Your task to perform on an android device: check android version Image 0: 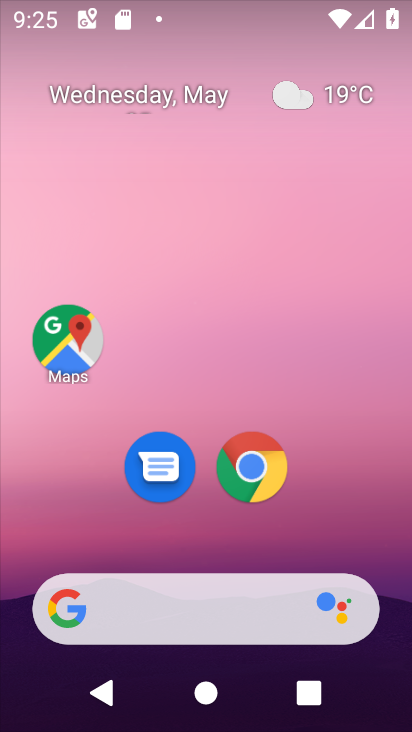
Step 0: drag from (355, 528) to (312, 54)
Your task to perform on an android device: check android version Image 1: 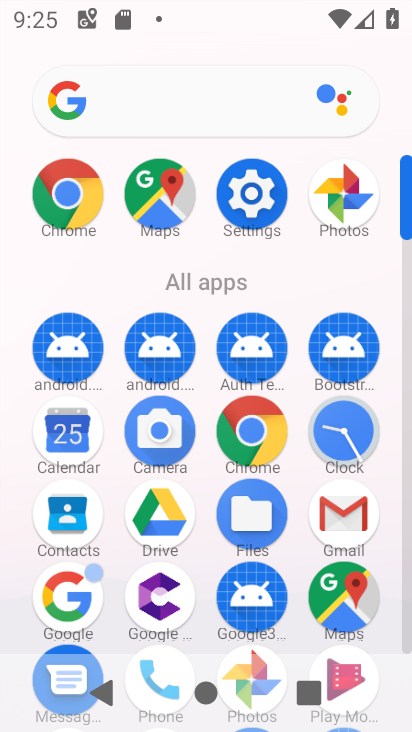
Step 1: click (255, 191)
Your task to perform on an android device: check android version Image 2: 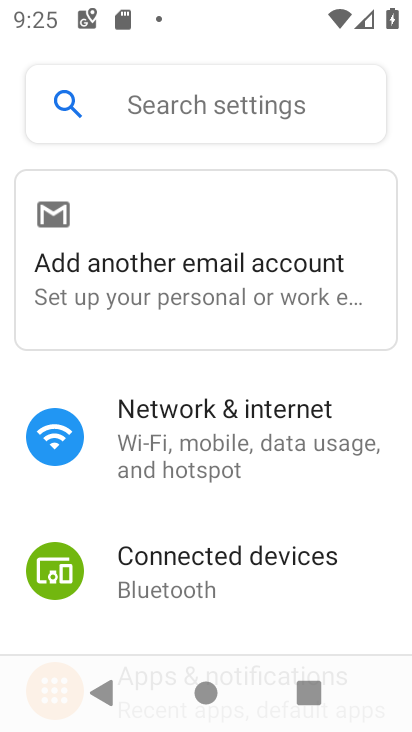
Step 2: drag from (247, 571) to (197, 17)
Your task to perform on an android device: check android version Image 3: 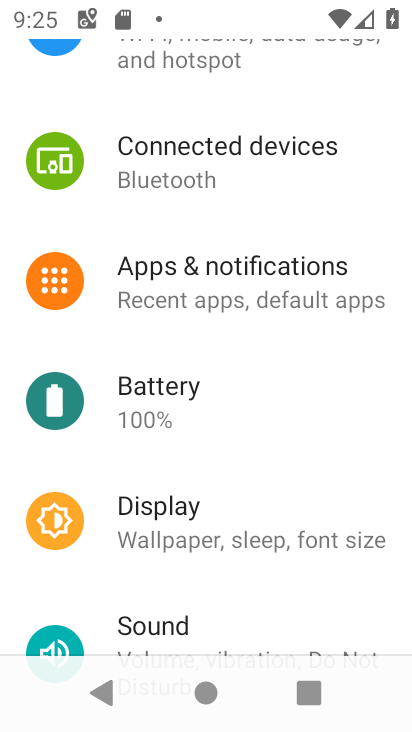
Step 3: drag from (204, 518) to (160, 90)
Your task to perform on an android device: check android version Image 4: 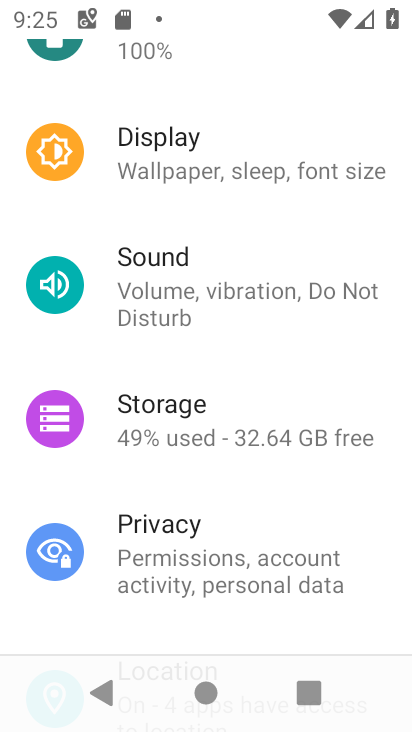
Step 4: drag from (99, 466) to (142, 83)
Your task to perform on an android device: check android version Image 5: 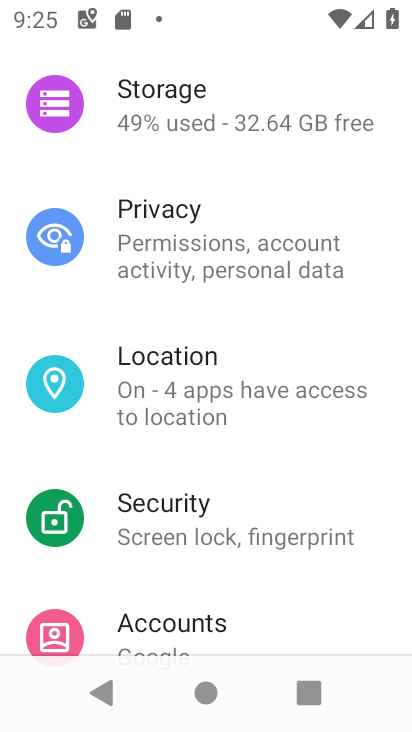
Step 5: drag from (177, 400) to (197, 39)
Your task to perform on an android device: check android version Image 6: 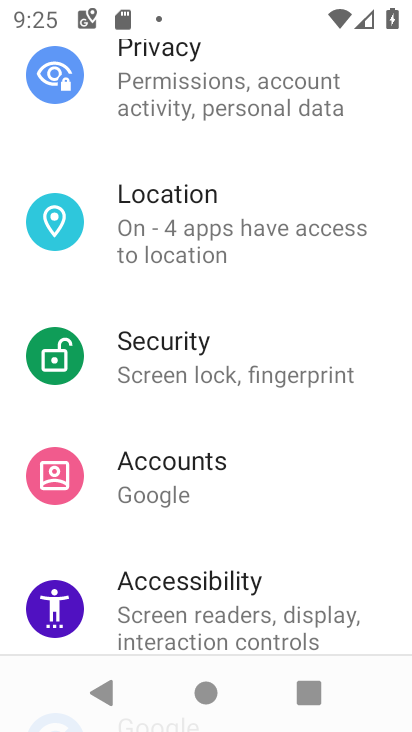
Step 6: drag from (137, 489) to (146, 88)
Your task to perform on an android device: check android version Image 7: 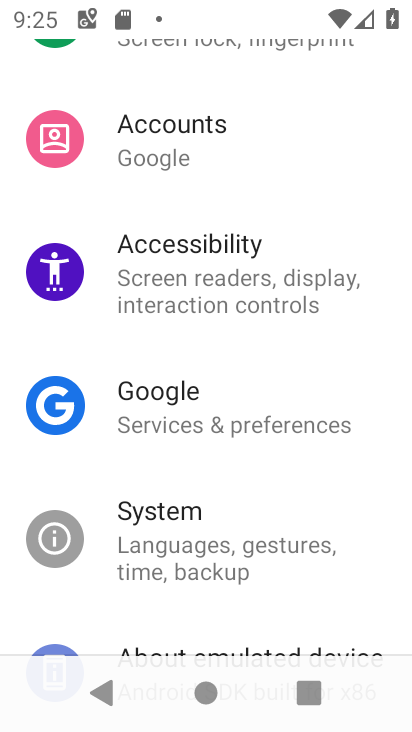
Step 7: drag from (113, 456) to (144, 73)
Your task to perform on an android device: check android version Image 8: 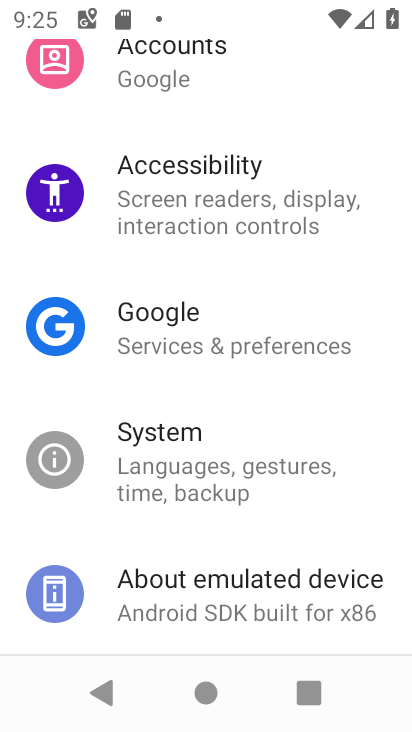
Step 8: click (134, 554)
Your task to perform on an android device: check android version Image 9: 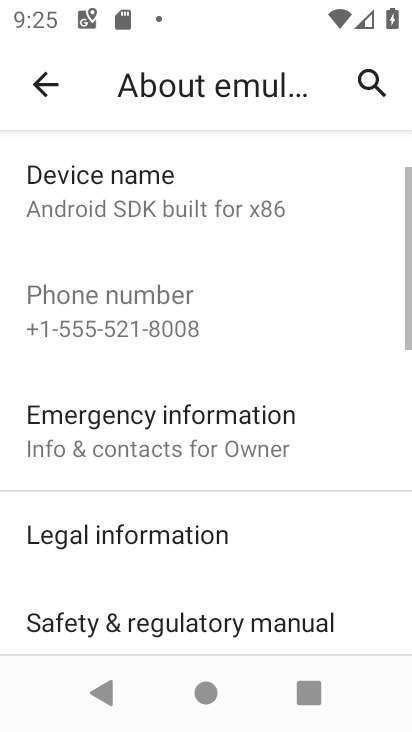
Step 9: task complete